Your task to perform on an android device: uninstall "Adobe Express: Graphic Design" Image 0: 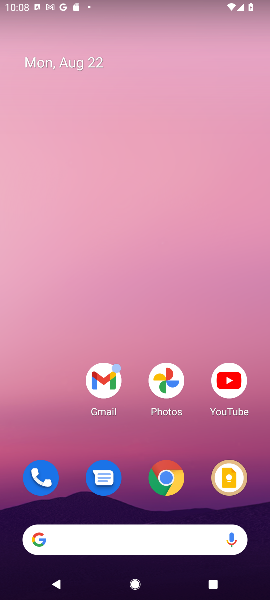
Step 0: drag from (126, 513) to (115, 135)
Your task to perform on an android device: uninstall "Adobe Express: Graphic Design" Image 1: 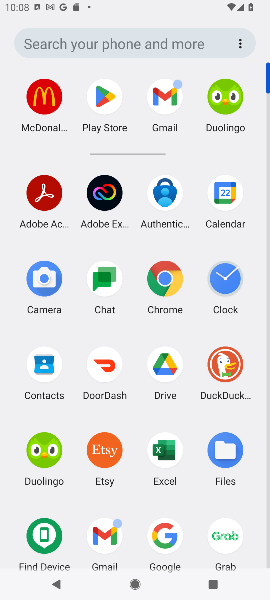
Step 1: click (50, 183)
Your task to perform on an android device: uninstall "Adobe Express: Graphic Design" Image 2: 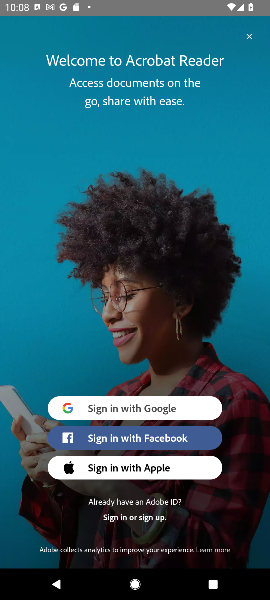
Step 2: task complete